Your task to perform on an android device: open a bookmark in the chrome app Image 0: 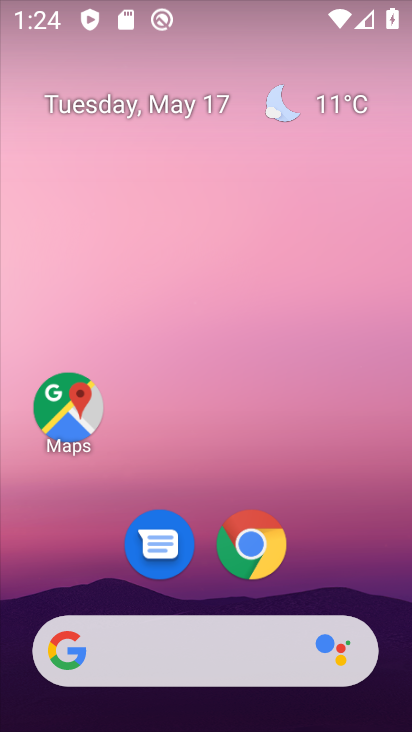
Step 0: press home button
Your task to perform on an android device: open a bookmark in the chrome app Image 1: 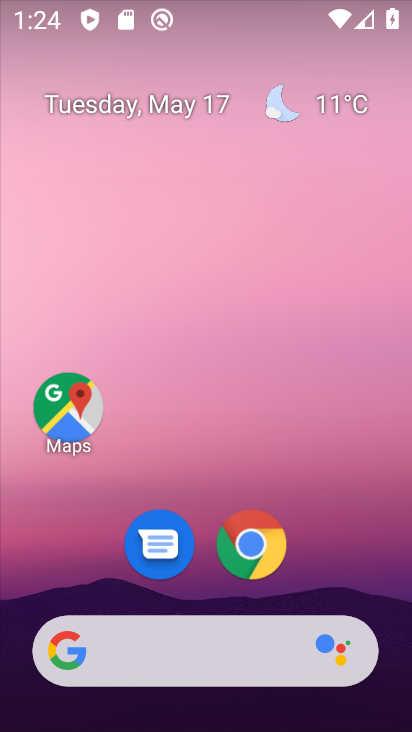
Step 1: click (240, 540)
Your task to perform on an android device: open a bookmark in the chrome app Image 2: 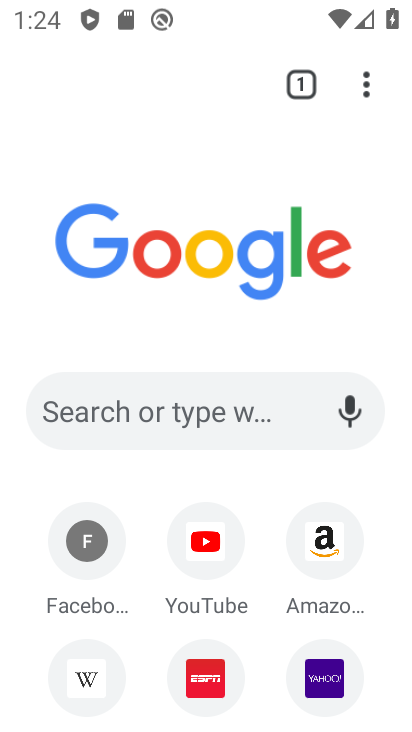
Step 2: task complete